Your task to perform on an android device: Find coffee shops on Maps Image 0: 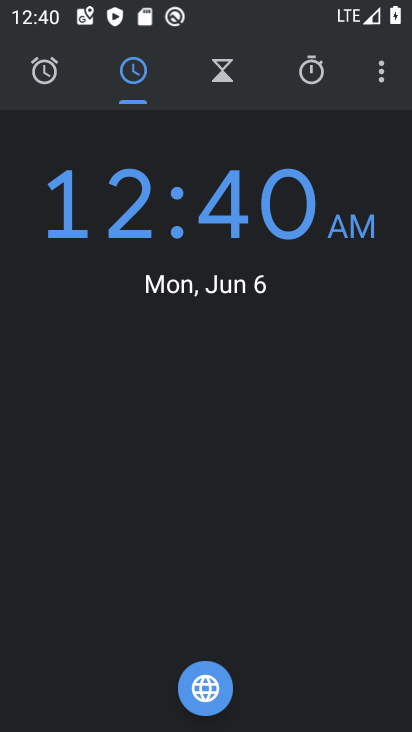
Step 0: press home button
Your task to perform on an android device: Find coffee shops on Maps Image 1: 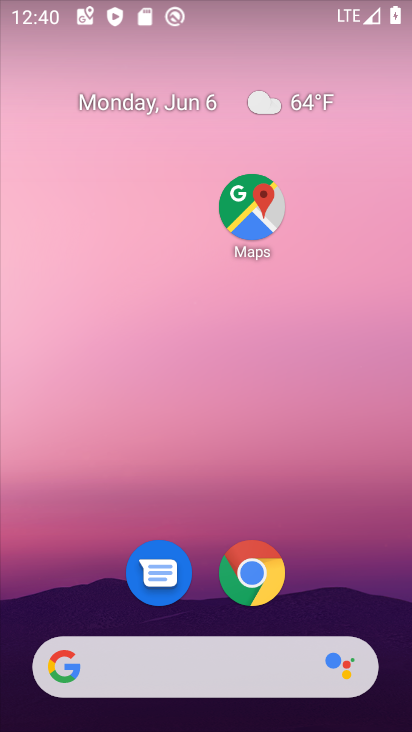
Step 1: drag from (209, 420) to (178, 15)
Your task to perform on an android device: Find coffee shops on Maps Image 2: 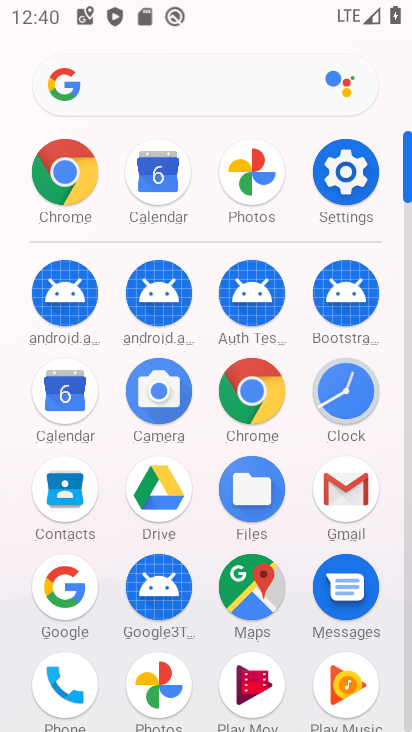
Step 2: drag from (212, 261) to (186, 16)
Your task to perform on an android device: Find coffee shops on Maps Image 3: 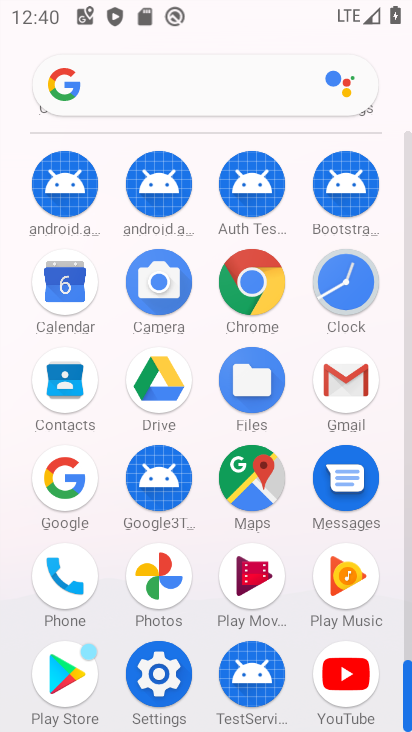
Step 3: click (245, 492)
Your task to perform on an android device: Find coffee shops on Maps Image 4: 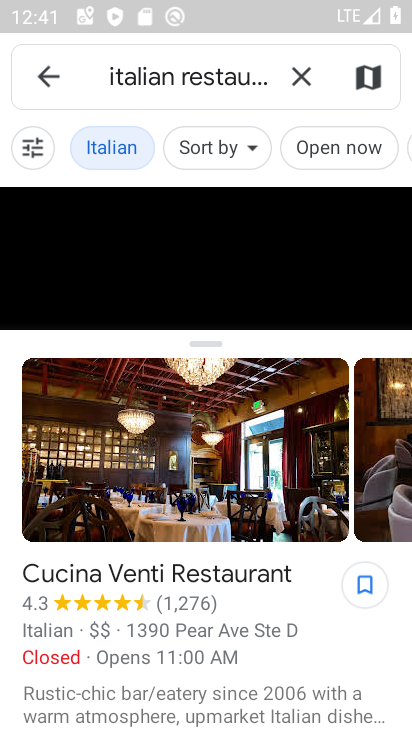
Step 4: click (306, 78)
Your task to perform on an android device: Find coffee shops on Maps Image 5: 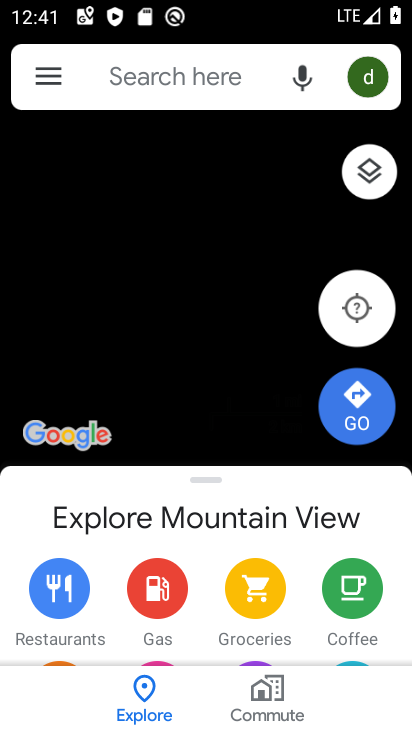
Step 5: click (164, 96)
Your task to perform on an android device: Find coffee shops on Maps Image 6: 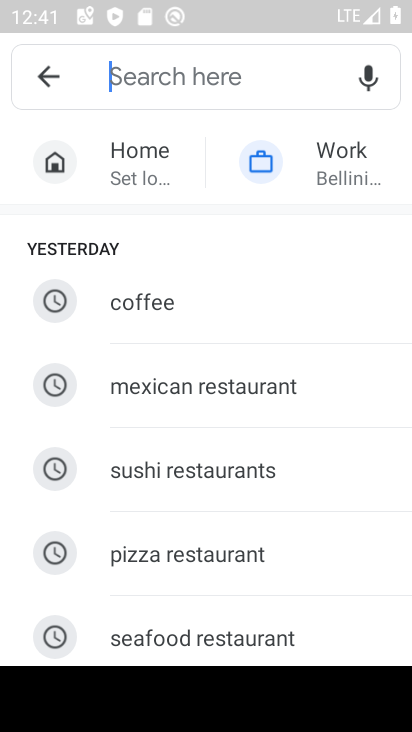
Step 6: click (189, 319)
Your task to perform on an android device: Find coffee shops on Maps Image 7: 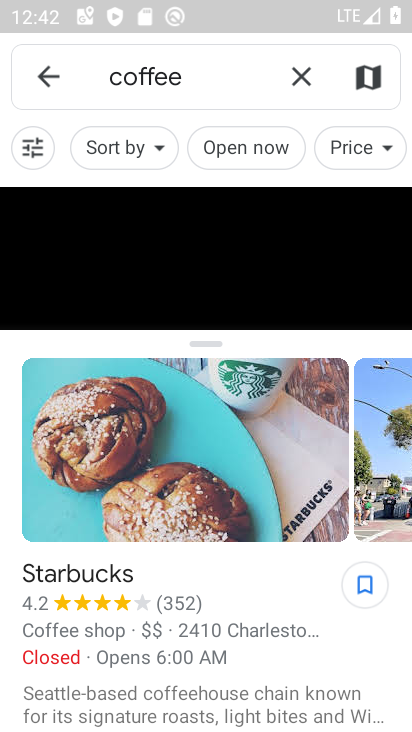
Step 7: task complete